Your task to perform on an android device: Open Yahoo.com Image 0: 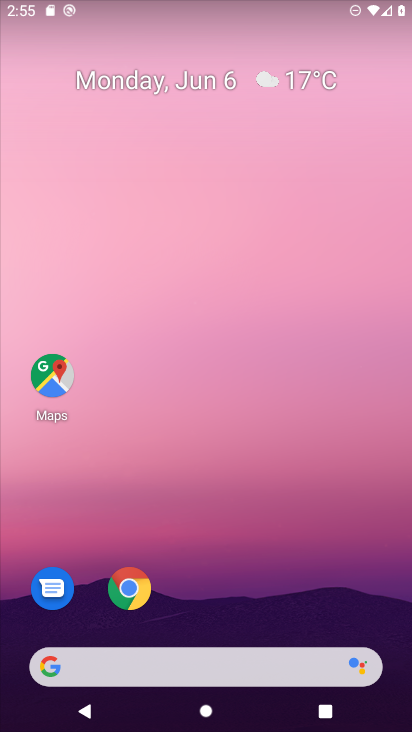
Step 0: click (285, 684)
Your task to perform on an android device: Open Yahoo.com Image 1: 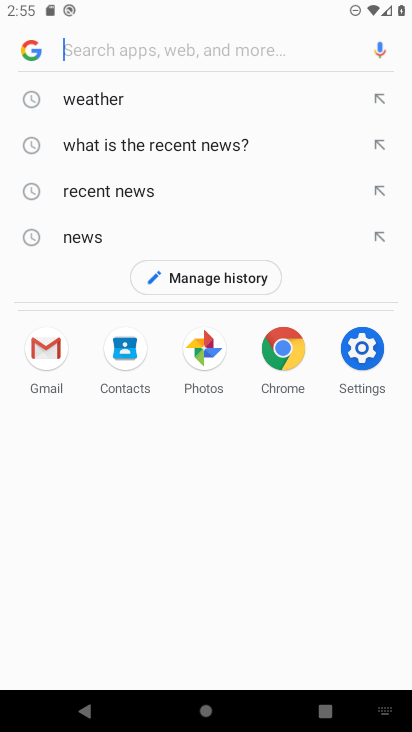
Step 1: type "yahoo.com"
Your task to perform on an android device: Open Yahoo.com Image 2: 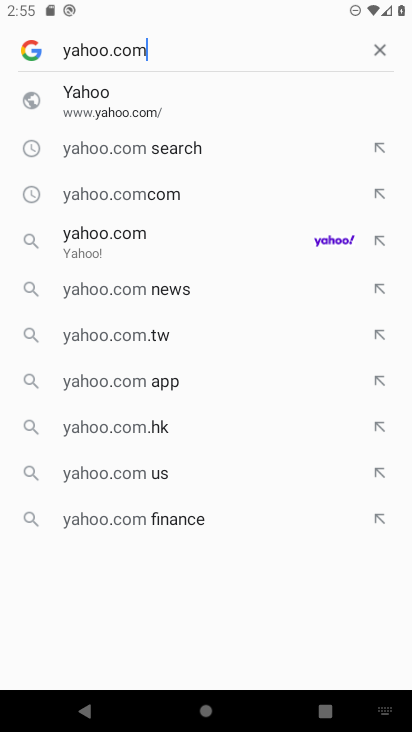
Step 2: click (139, 112)
Your task to perform on an android device: Open Yahoo.com Image 3: 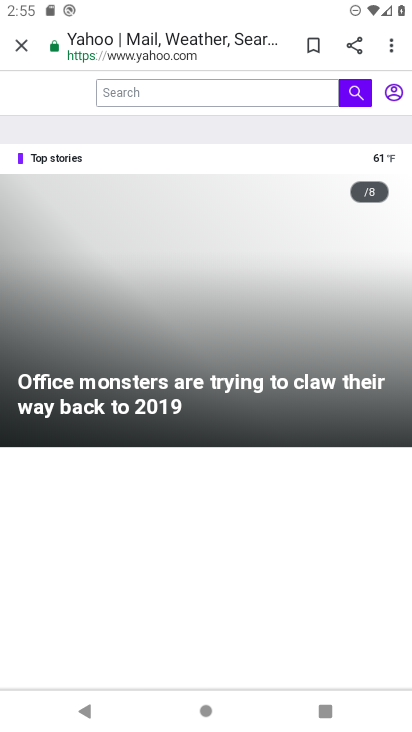
Step 3: task complete